Your task to perform on an android device: Search for Mexican restaurants on Maps Image 0: 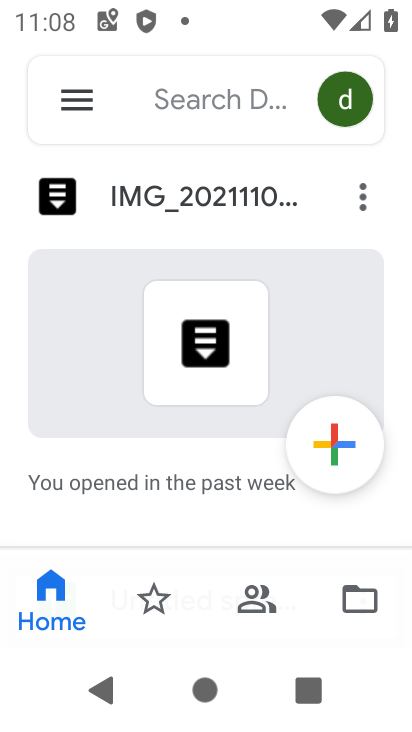
Step 0: press home button
Your task to perform on an android device: Search for Mexican restaurants on Maps Image 1: 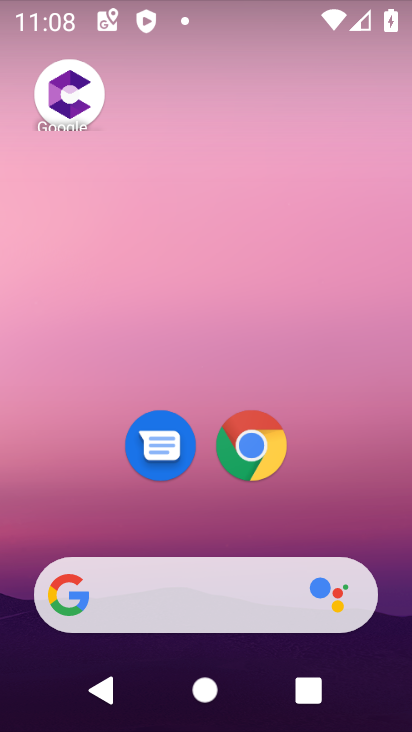
Step 1: drag from (149, 461) to (183, 96)
Your task to perform on an android device: Search for Mexican restaurants on Maps Image 2: 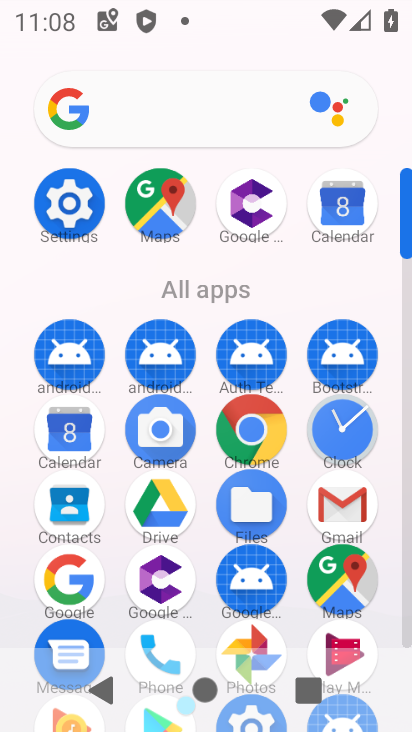
Step 2: click (165, 187)
Your task to perform on an android device: Search for Mexican restaurants on Maps Image 3: 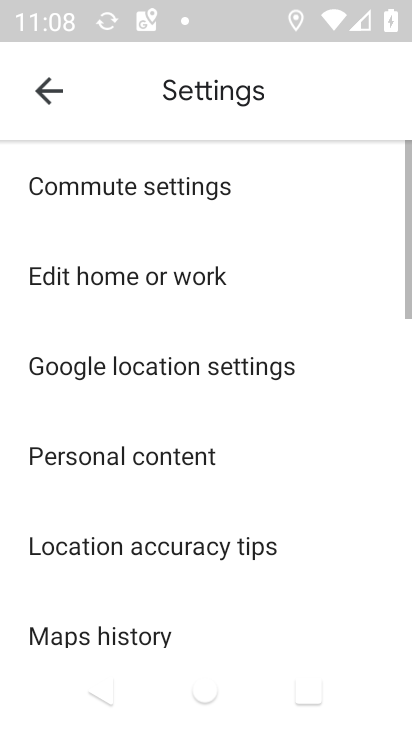
Step 3: click (34, 92)
Your task to perform on an android device: Search for Mexican restaurants on Maps Image 4: 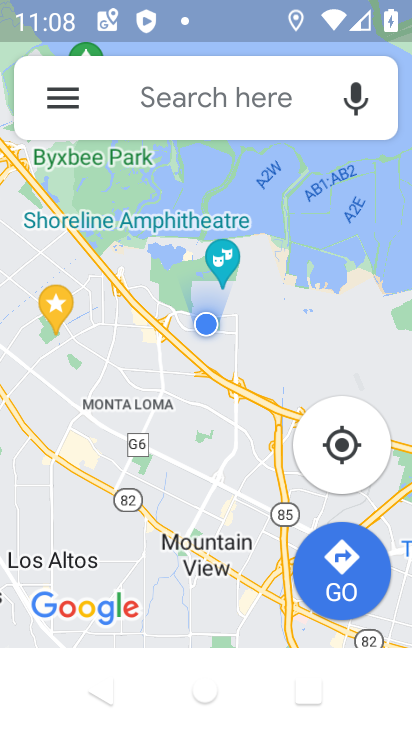
Step 4: click (215, 98)
Your task to perform on an android device: Search for Mexican restaurants on Maps Image 5: 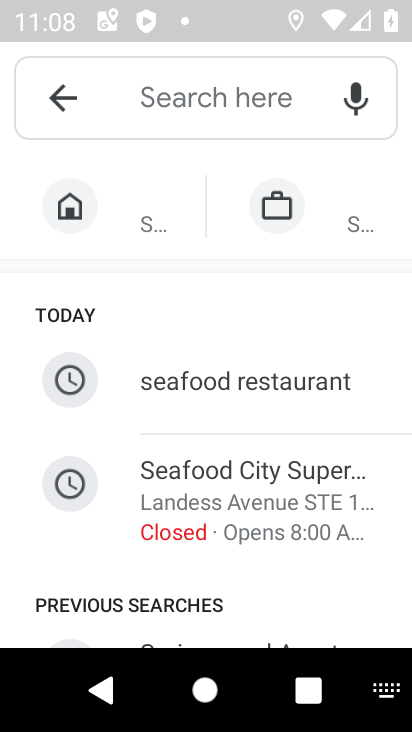
Step 5: type "Mexican restaurants"
Your task to perform on an android device: Search for Mexican restaurants on Maps Image 6: 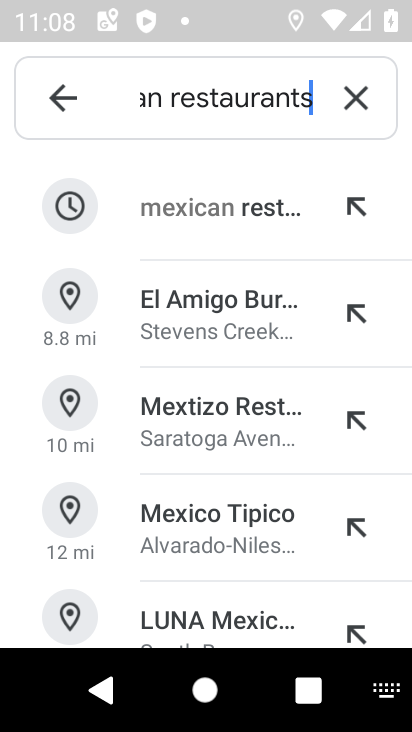
Step 6: click (253, 207)
Your task to perform on an android device: Search for Mexican restaurants on Maps Image 7: 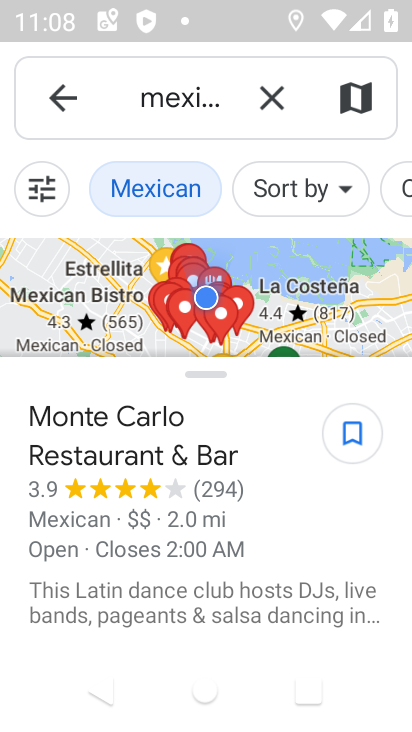
Step 7: task complete